Your task to perform on an android device: What is the recent news? Image 0: 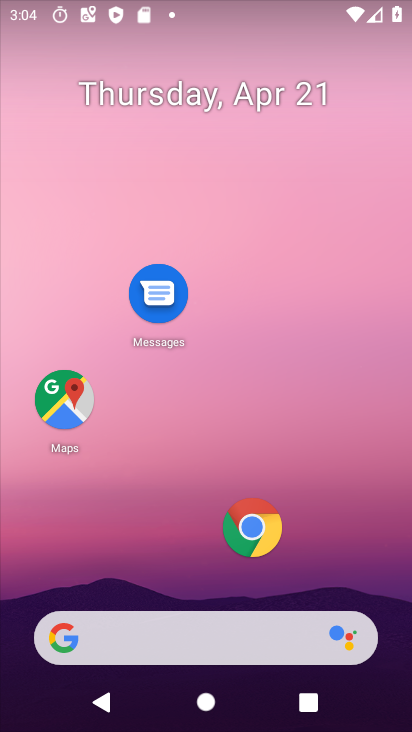
Step 0: drag from (223, 611) to (250, 317)
Your task to perform on an android device: What is the recent news? Image 1: 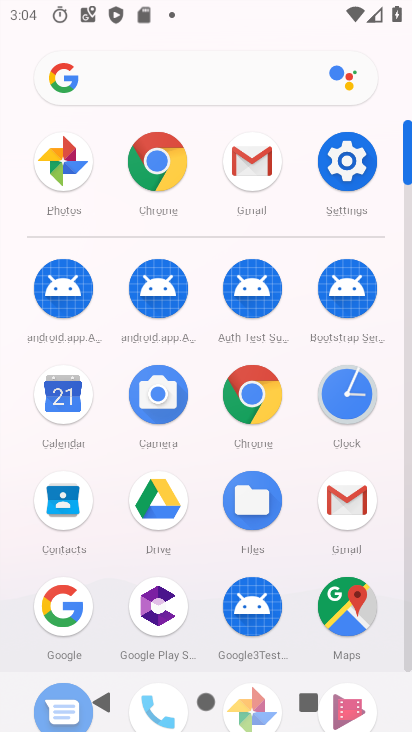
Step 1: drag from (206, 616) to (278, 258)
Your task to perform on an android device: What is the recent news? Image 2: 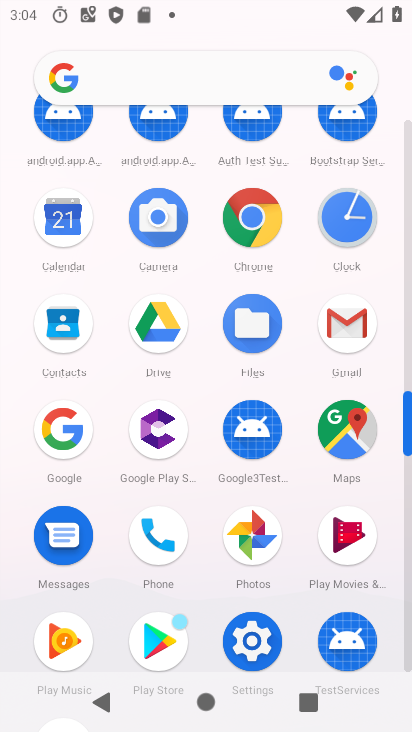
Step 2: click (61, 424)
Your task to perform on an android device: What is the recent news? Image 3: 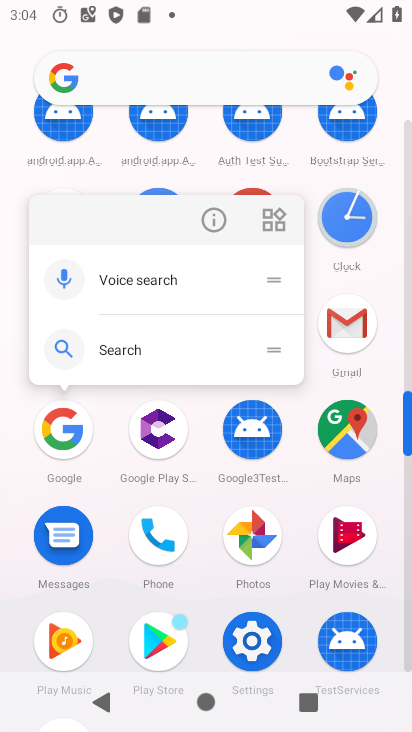
Step 3: click (61, 426)
Your task to perform on an android device: What is the recent news? Image 4: 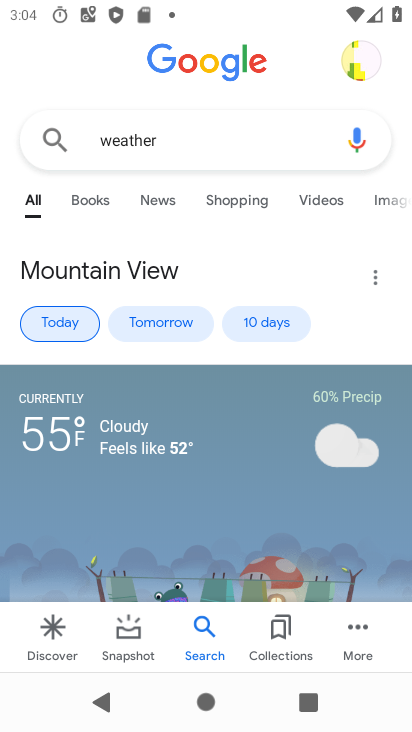
Step 4: click (159, 145)
Your task to perform on an android device: What is the recent news? Image 5: 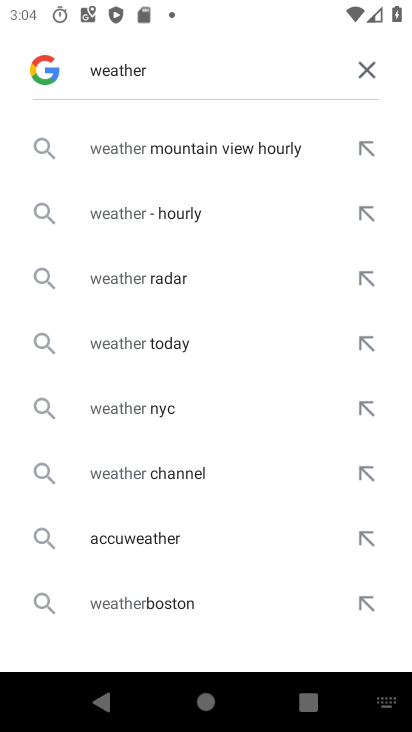
Step 5: click (121, 70)
Your task to perform on an android device: What is the recent news? Image 6: 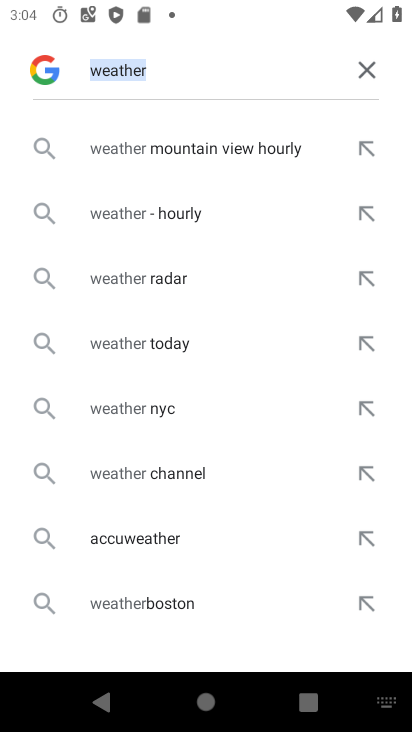
Step 6: click (121, 70)
Your task to perform on an android device: What is the recent news? Image 7: 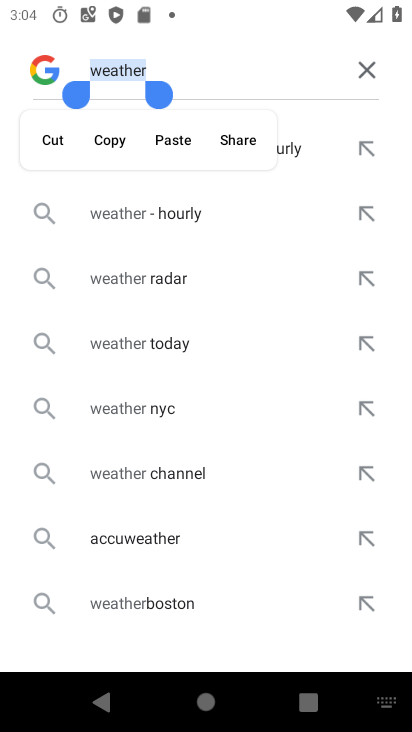
Step 7: click (46, 137)
Your task to perform on an android device: What is the recent news? Image 8: 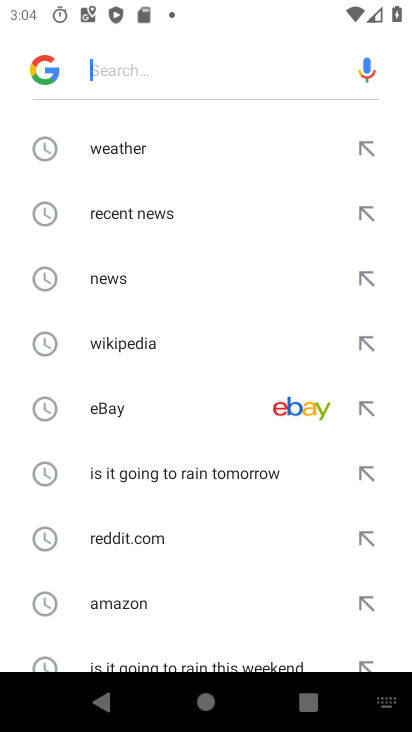
Step 8: drag from (151, 607) to (198, 307)
Your task to perform on an android device: What is the recent news? Image 9: 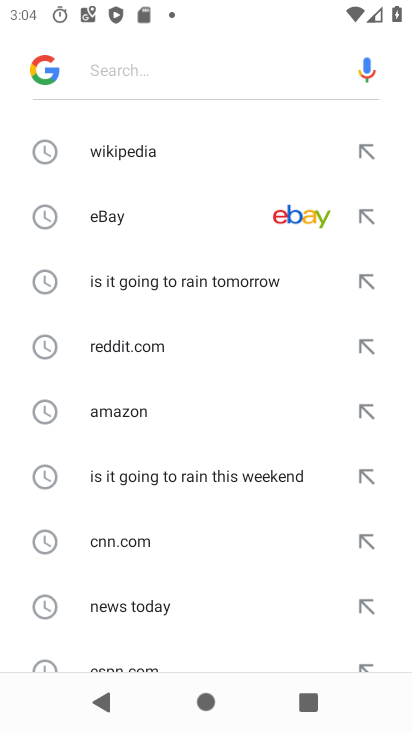
Step 9: drag from (167, 247) to (198, 544)
Your task to perform on an android device: What is the recent news? Image 10: 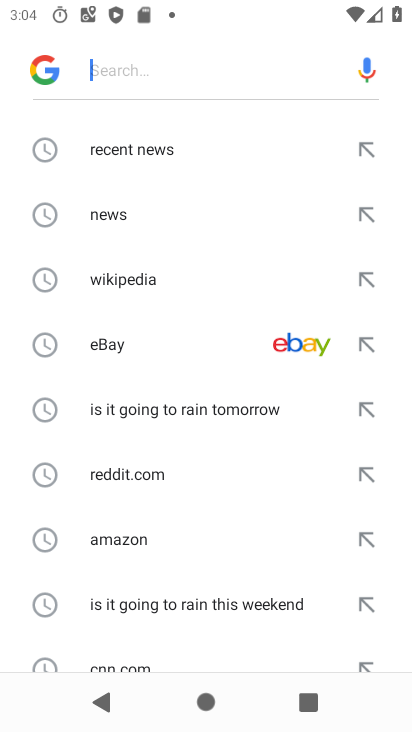
Step 10: click (130, 158)
Your task to perform on an android device: What is the recent news? Image 11: 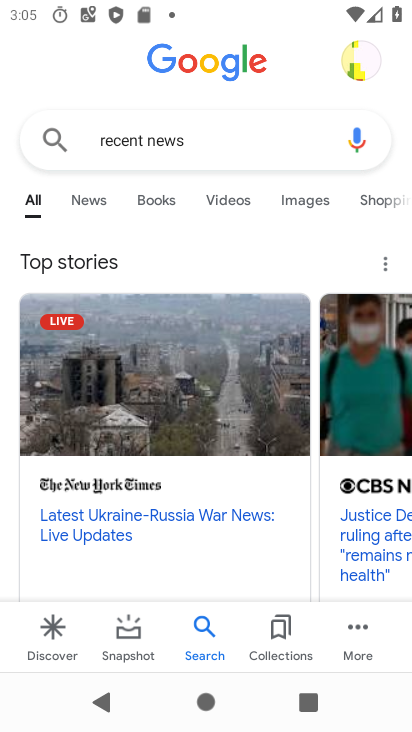
Step 11: task complete